Your task to perform on an android device: delete a single message in the gmail app Image 0: 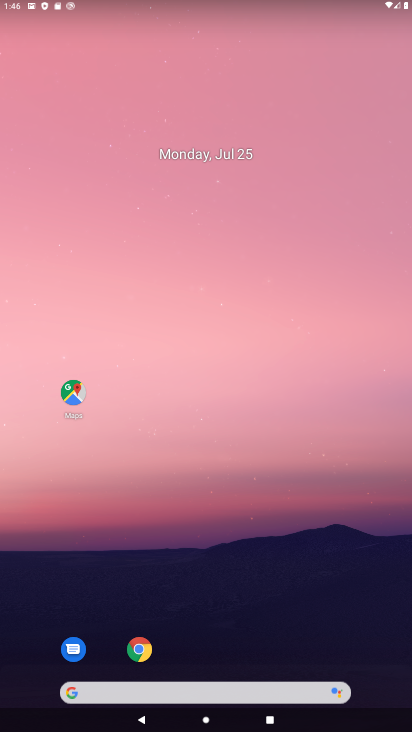
Step 0: drag from (327, 647) to (283, 156)
Your task to perform on an android device: delete a single message in the gmail app Image 1: 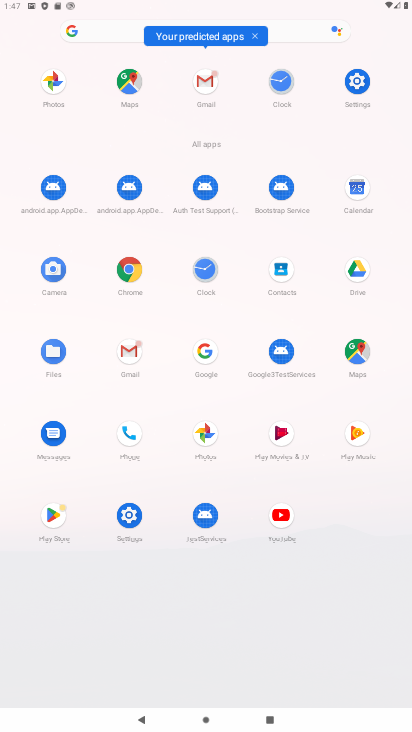
Step 1: click (125, 347)
Your task to perform on an android device: delete a single message in the gmail app Image 2: 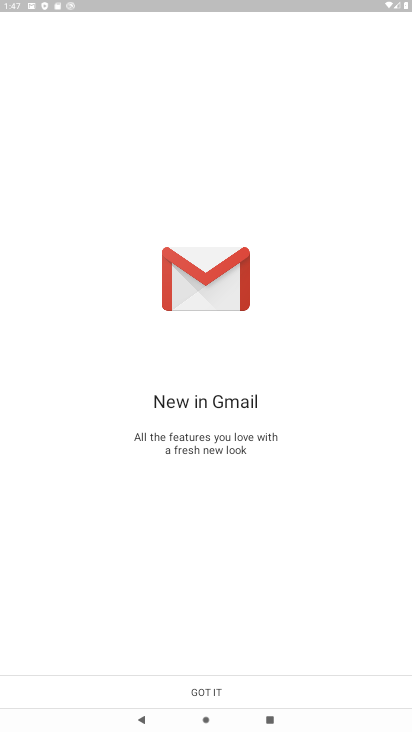
Step 2: click (202, 685)
Your task to perform on an android device: delete a single message in the gmail app Image 3: 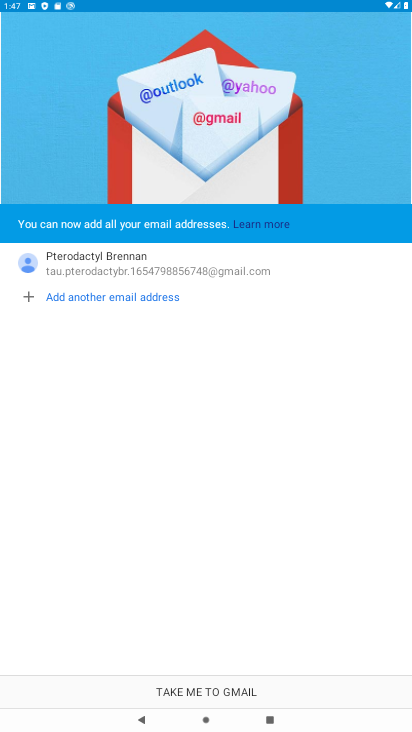
Step 3: click (199, 697)
Your task to perform on an android device: delete a single message in the gmail app Image 4: 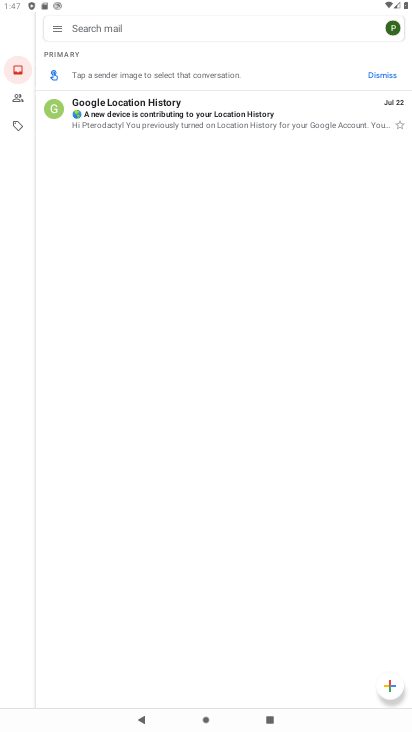
Step 4: click (175, 111)
Your task to perform on an android device: delete a single message in the gmail app Image 5: 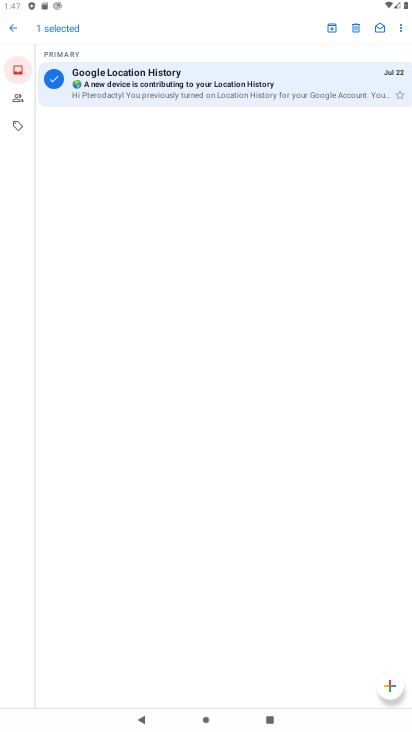
Step 5: click (354, 29)
Your task to perform on an android device: delete a single message in the gmail app Image 6: 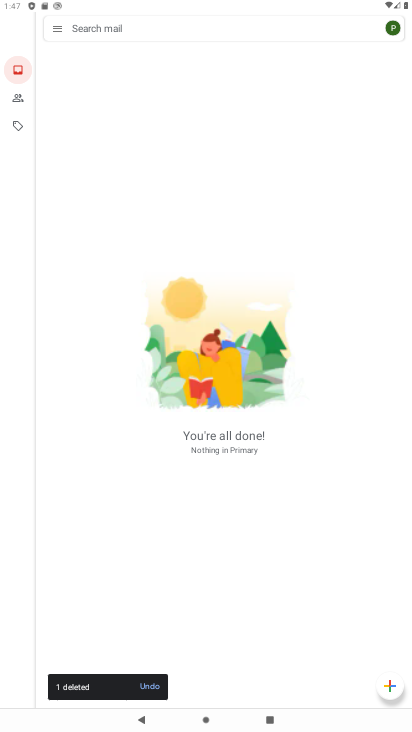
Step 6: task complete